Your task to perform on an android device: Open Google Image 0: 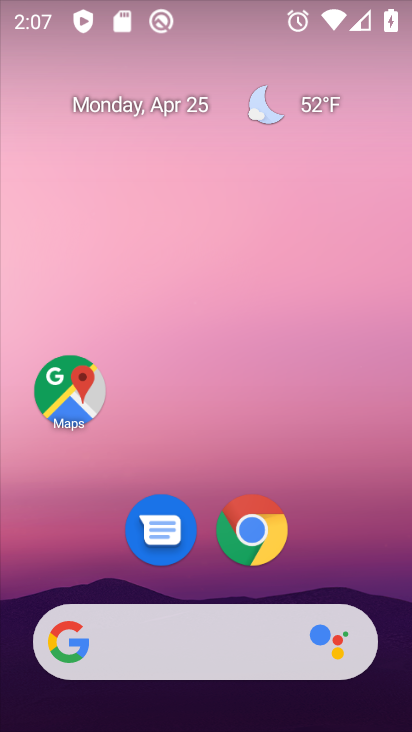
Step 0: drag from (340, 544) to (337, 56)
Your task to perform on an android device: Open Google Image 1: 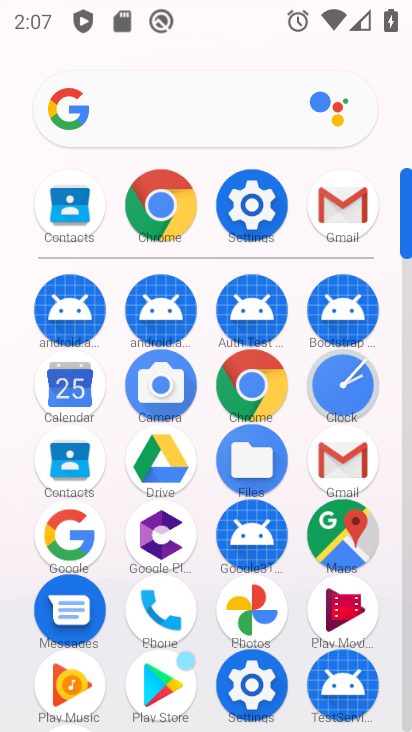
Step 1: click (59, 540)
Your task to perform on an android device: Open Google Image 2: 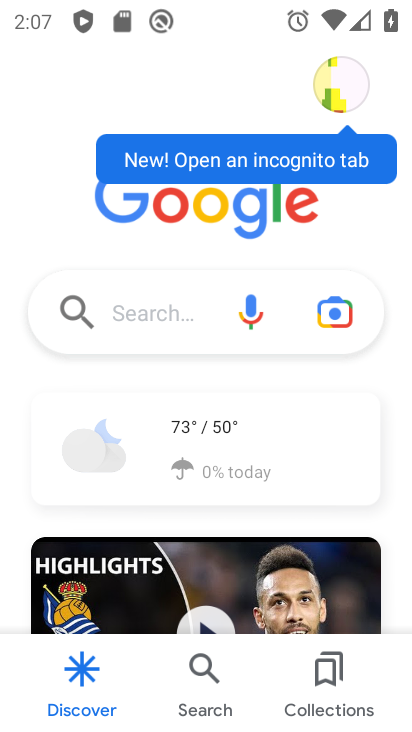
Step 2: task complete